Your task to perform on an android device: change the clock display to show seconds Image 0: 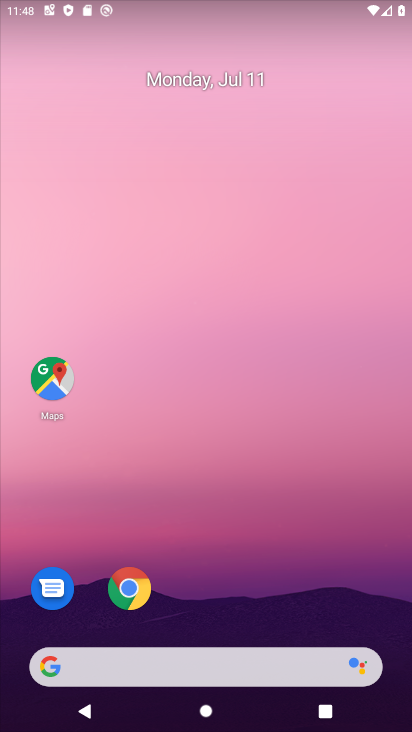
Step 0: drag from (272, 581) to (109, 7)
Your task to perform on an android device: change the clock display to show seconds Image 1: 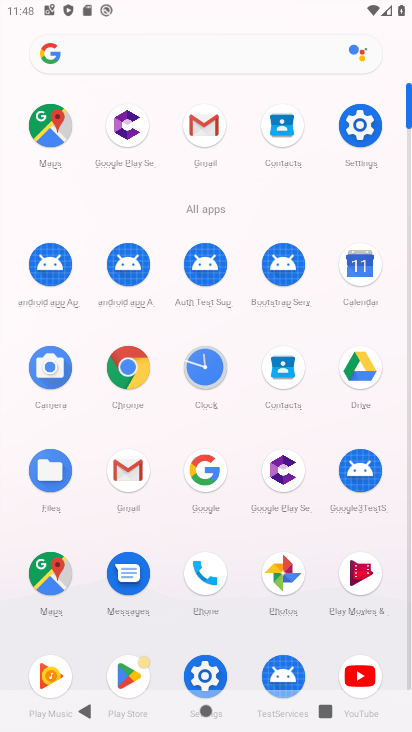
Step 1: click (214, 364)
Your task to perform on an android device: change the clock display to show seconds Image 2: 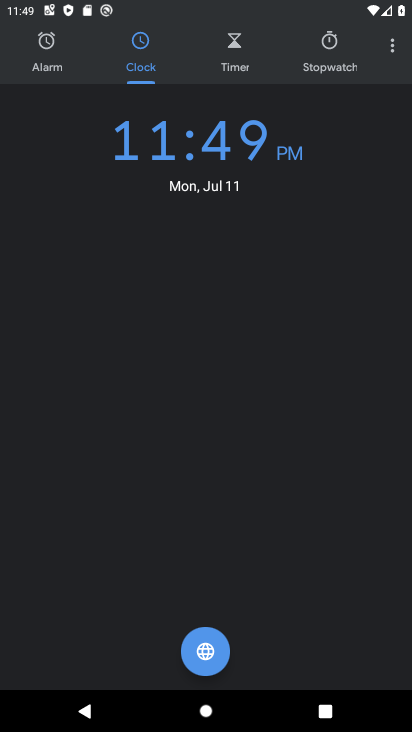
Step 2: click (392, 49)
Your task to perform on an android device: change the clock display to show seconds Image 3: 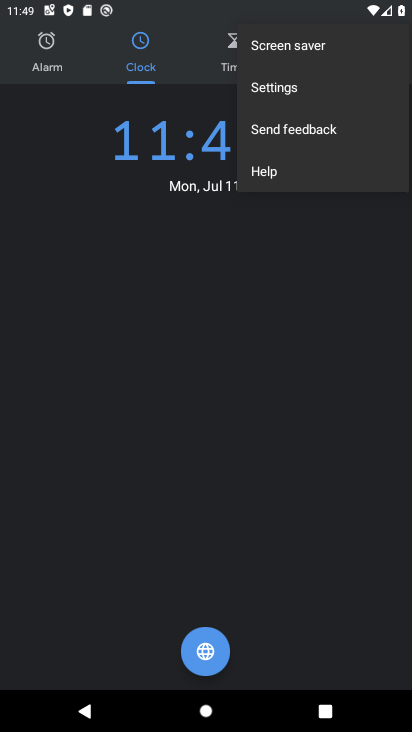
Step 3: click (279, 84)
Your task to perform on an android device: change the clock display to show seconds Image 4: 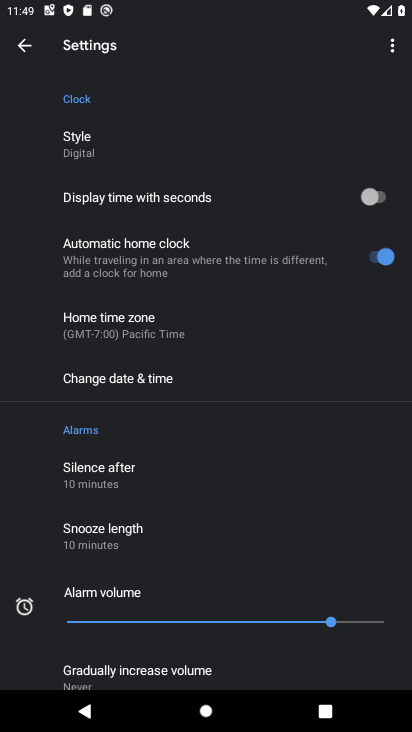
Step 4: click (364, 196)
Your task to perform on an android device: change the clock display to show seconds Image 5: 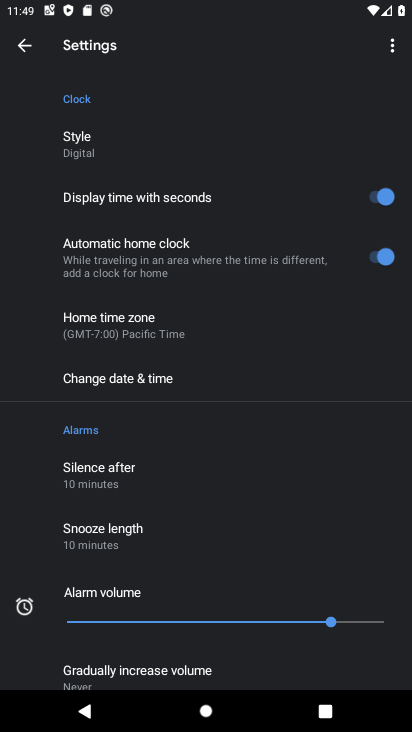
Step 5: task complete